Your task to perform on an android device: choose inbox layout in the gmail app Image 0: 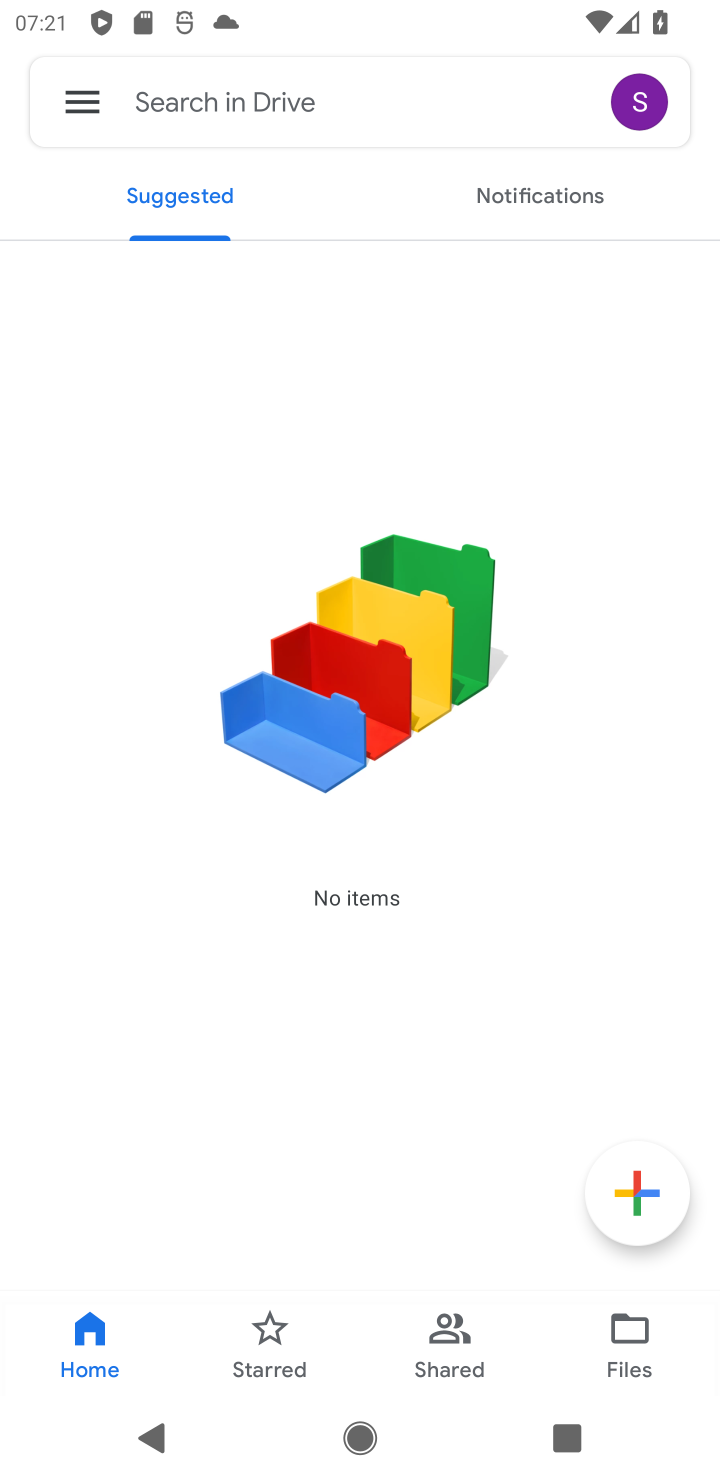
Step 0: press home button
Your task to perform on an android device: choose inbox layout in the gmail app Image 1: 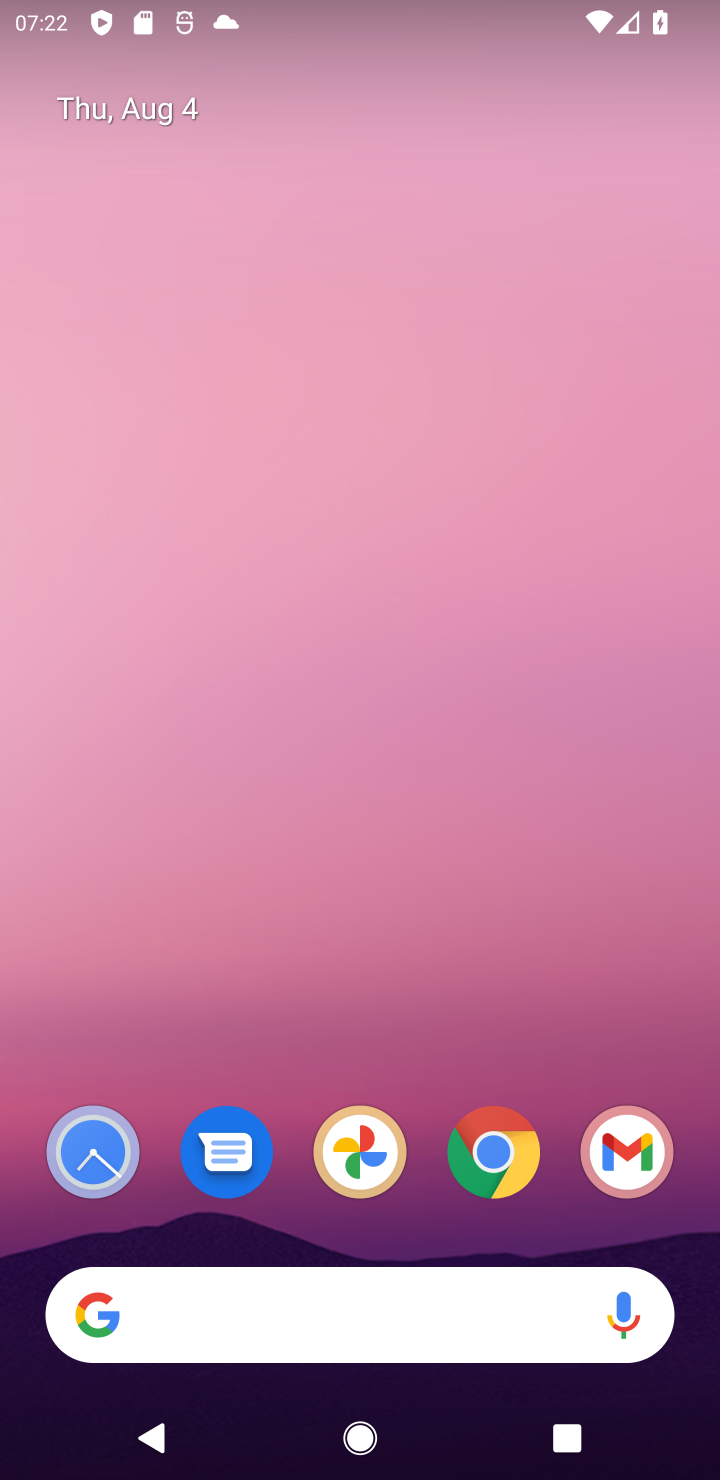
Step 1: click (630, 1147)
Your task to perform on an android device: choose inbox layout in the gmail app Image 2: 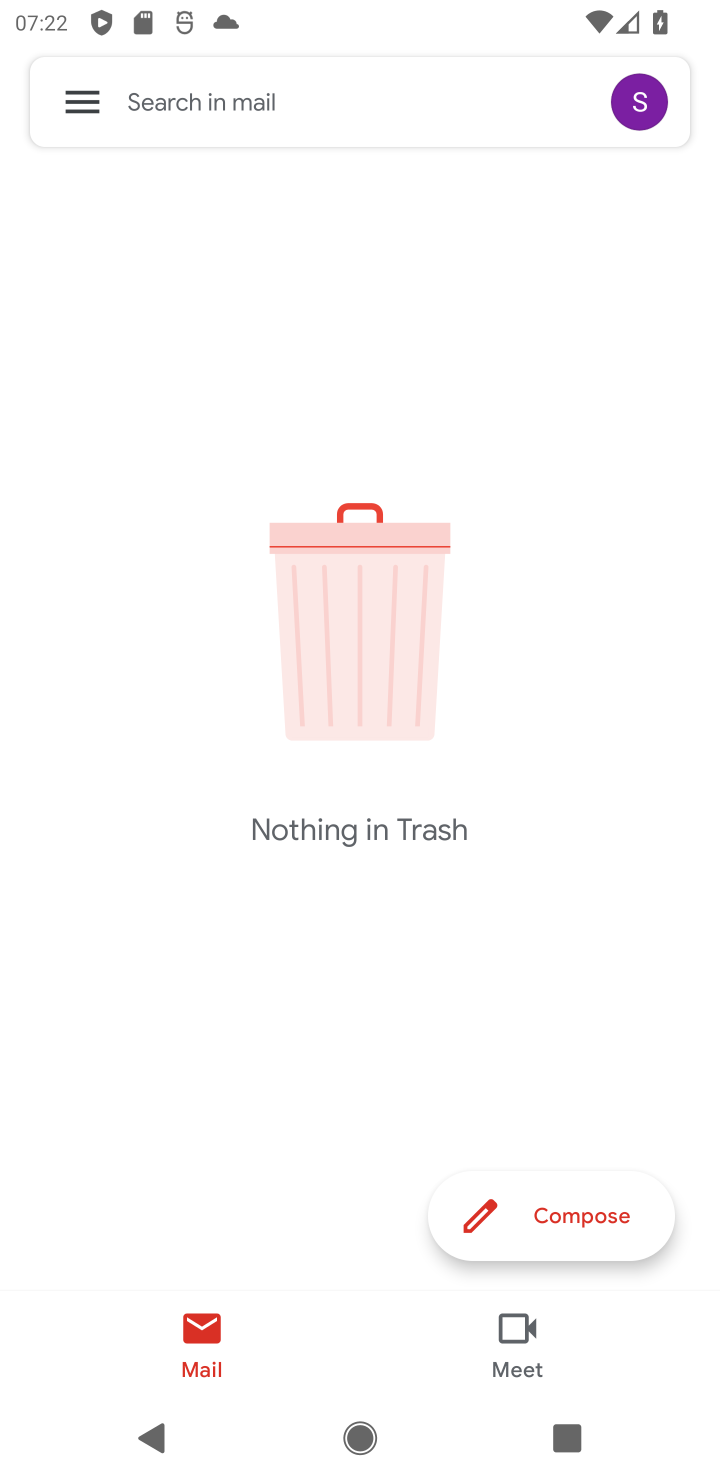
Step 2: click (94, 96)
Your task to perform on an android device: choose inbox layout in the gmail app Image 3: 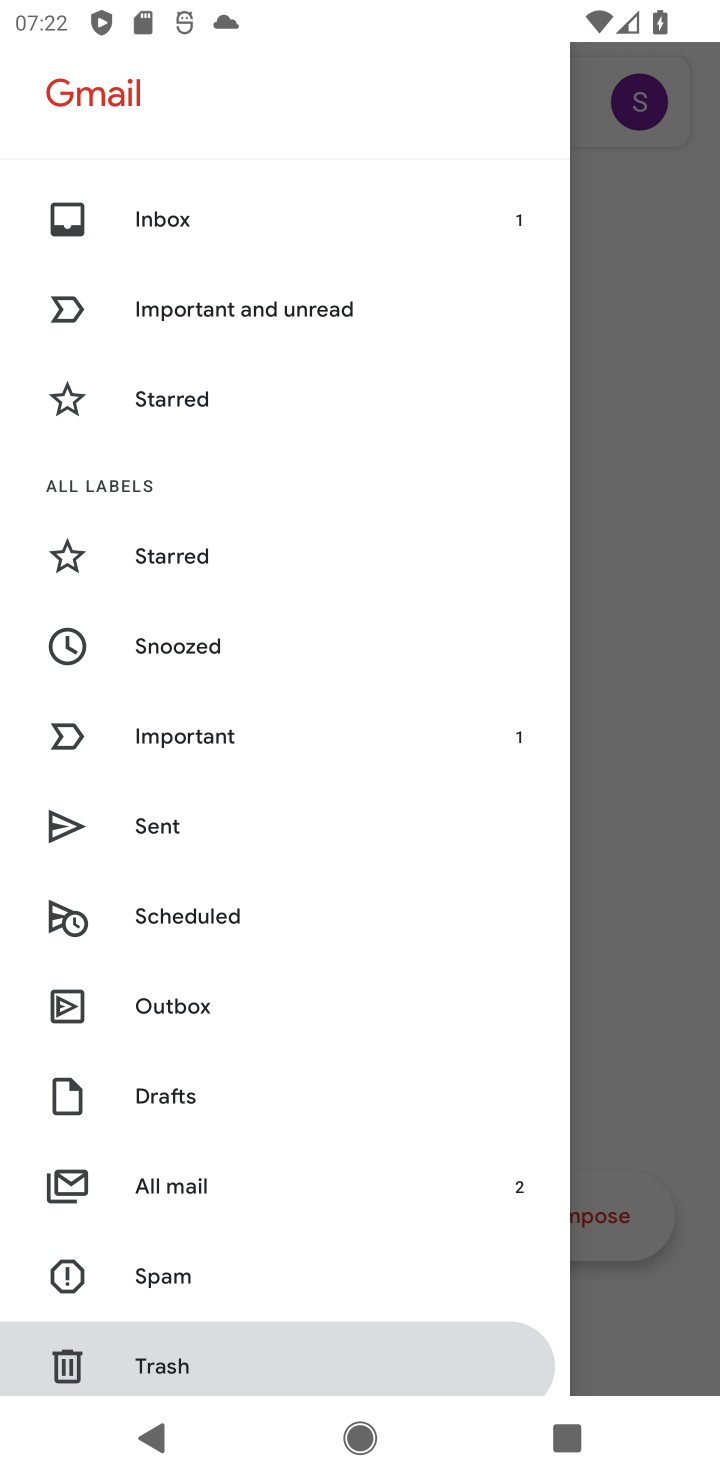
Step 3: drag from (93, 1079) to (420, 156)
Your task to perform on an android device: choose inbox layout in the gmail app Image 4: 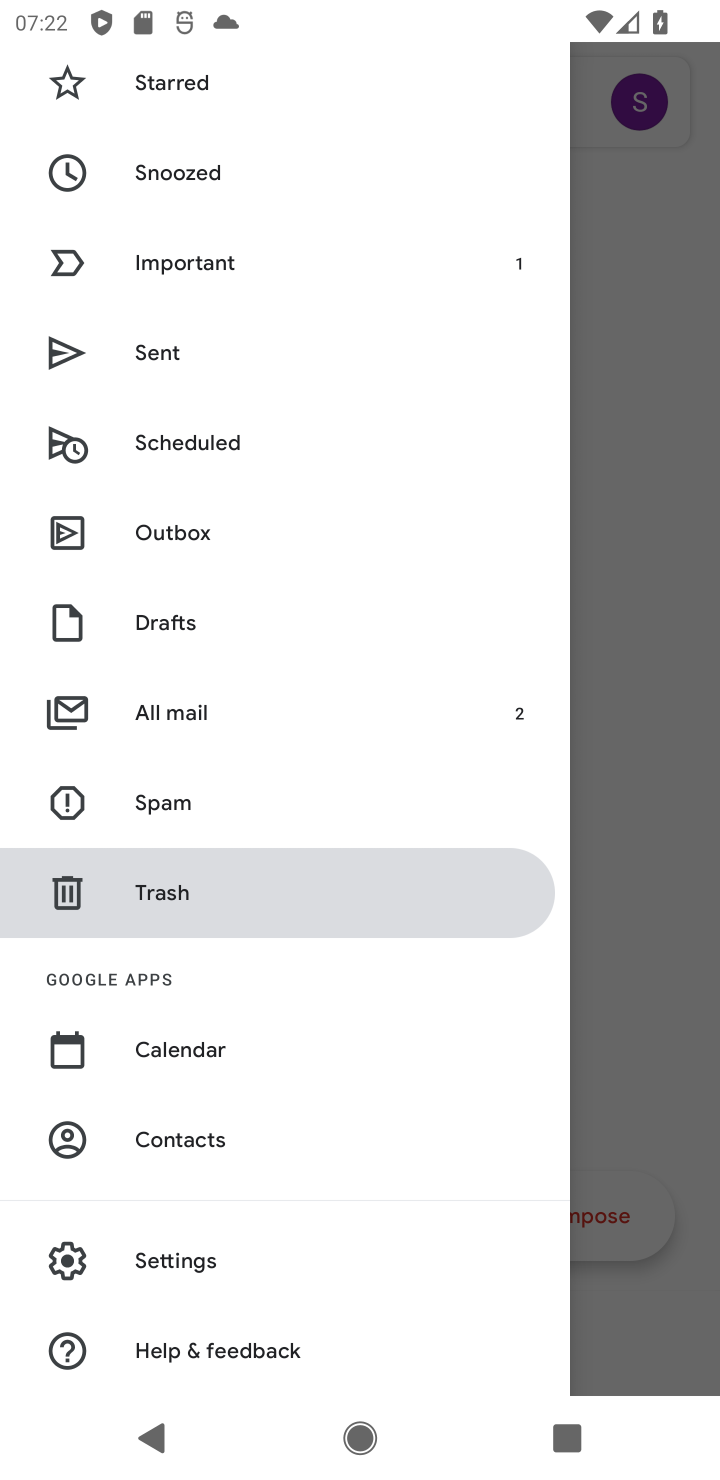
Step 4: click (146, 1242)
Your task to perform on an android device: choose inbox layout in the gmail app Image 5: 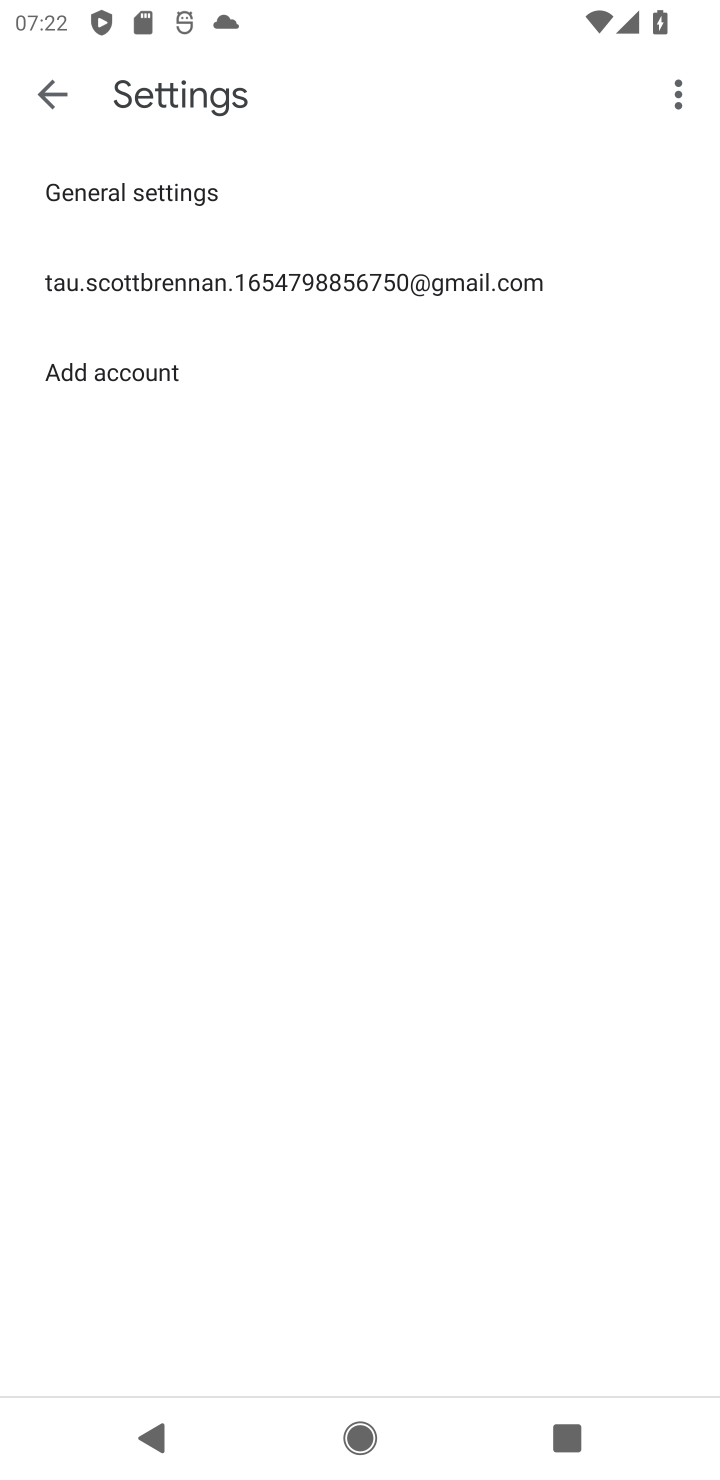
Step 5: click (306, 276)
Your task to perform on an android device: choose inbox layout in the gmail app Image 6: 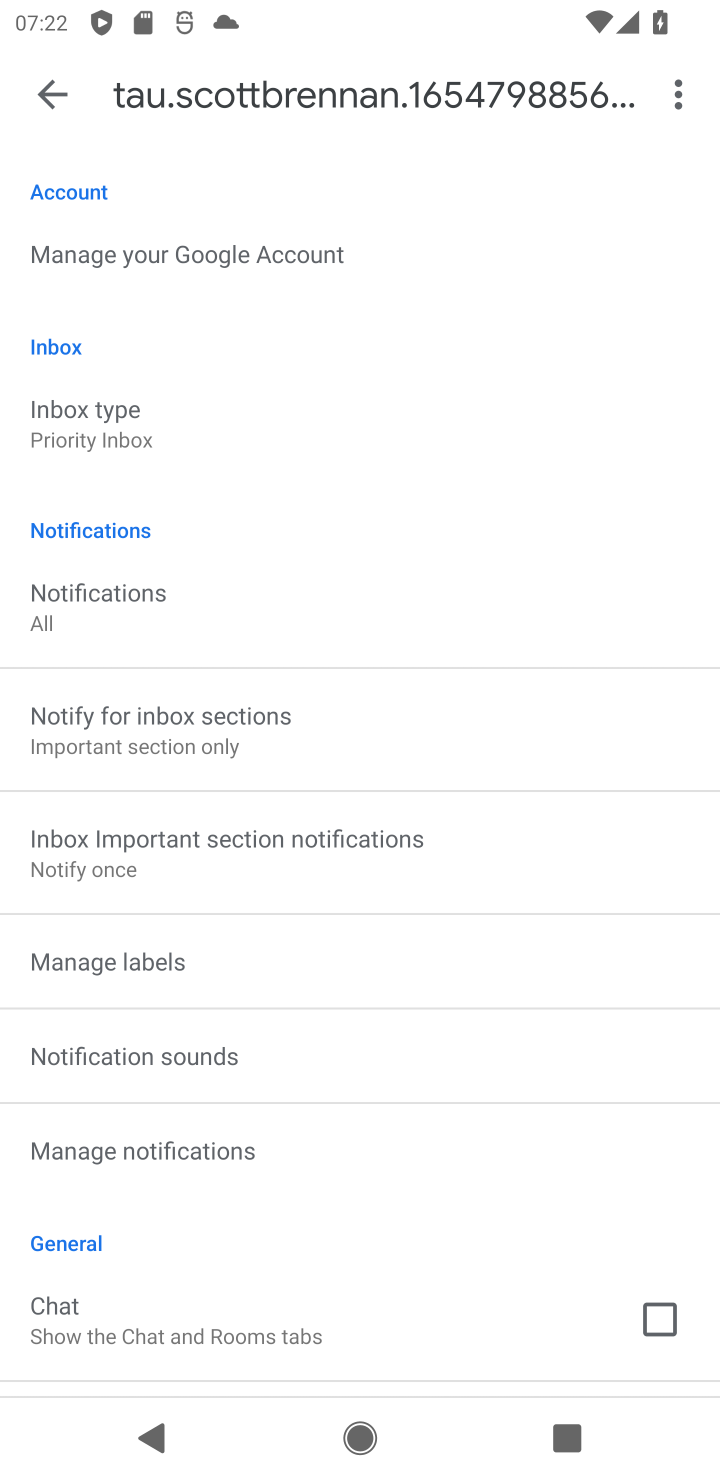
Step 6: click (153, 442)
Your task to perform on an android device: choose inbox layout in the gmail app Image 7: 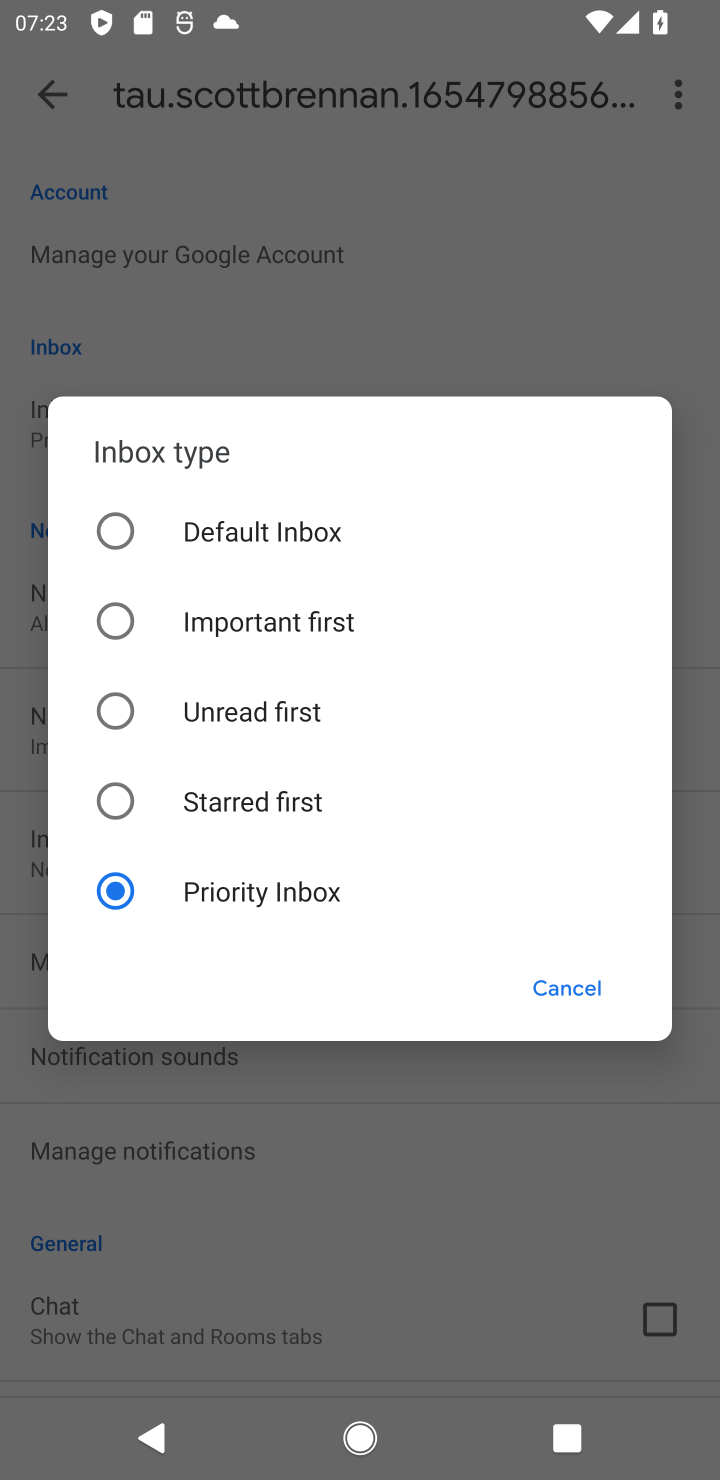
Step 7: task complete